Your task to perform on an android device: Go to privacy settings Image 0: 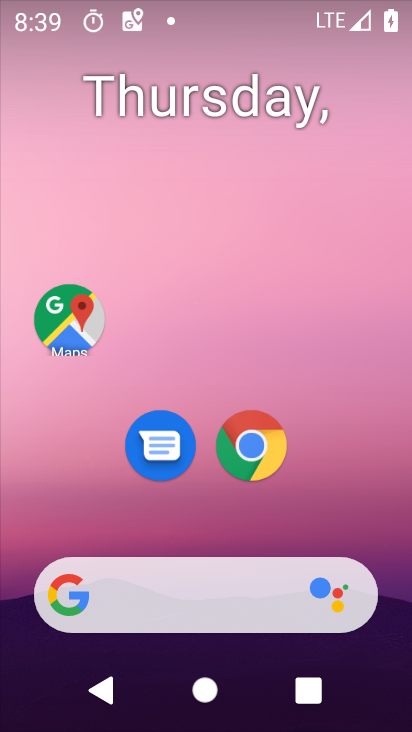
Step 0: drag from (198, 535) to (218, 154)
Your task to perform on an android device: Go to privacy settings Image 1: 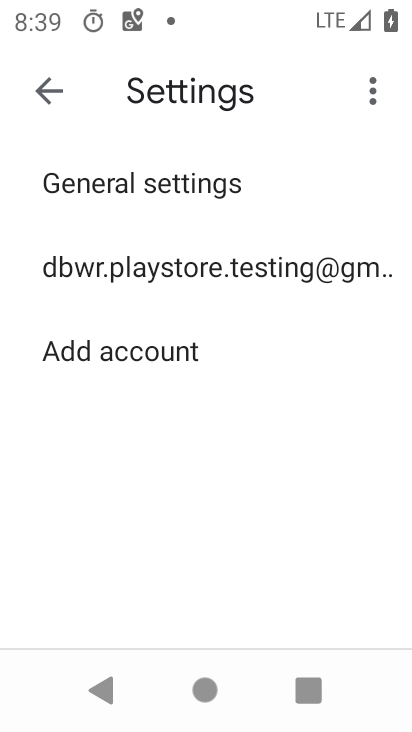
Step 1: press home button
Your task to perform on an android device: Go to privacy settings Image 2: 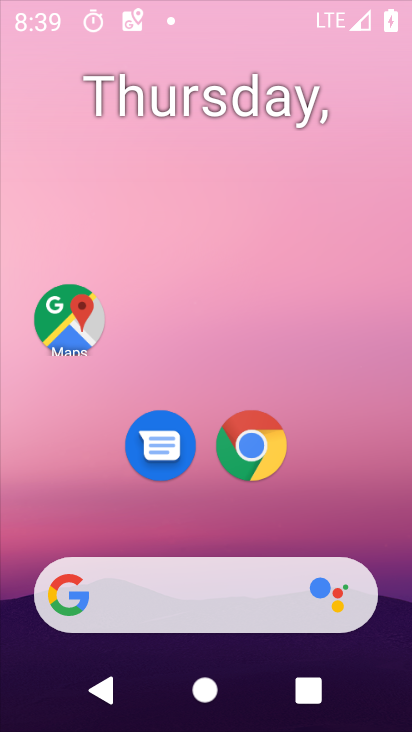
Step 2: drag from (192, 532) to (176, 148)
Your task to perform on an android device: Go to privacy settings Image 3: 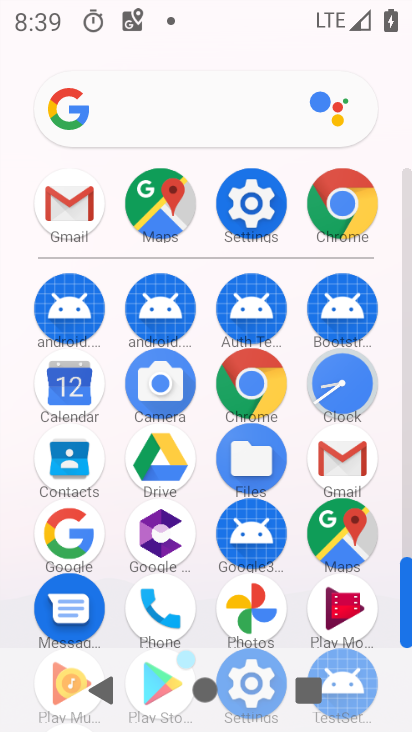
Step 3: click (260, 204)
Your task to perform on an android device: Go to privacy settings Image 4: 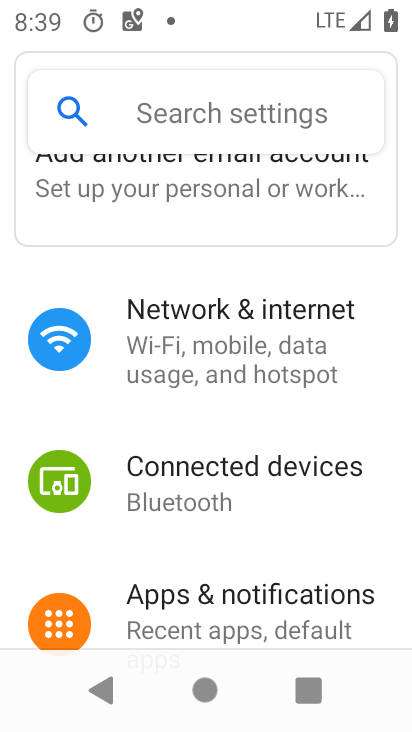
Step 4: drag from (192, 594) to (315, 88)
Your task to perform on an android device: Go to privacy settings Image 5: 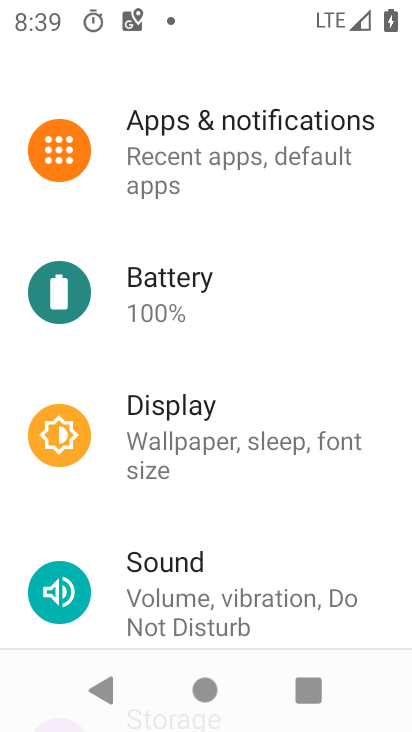
Step 5: drag from (223, 565) to (245, 192)
Your task to perform on an android device: Go to privacy settings Image 6: 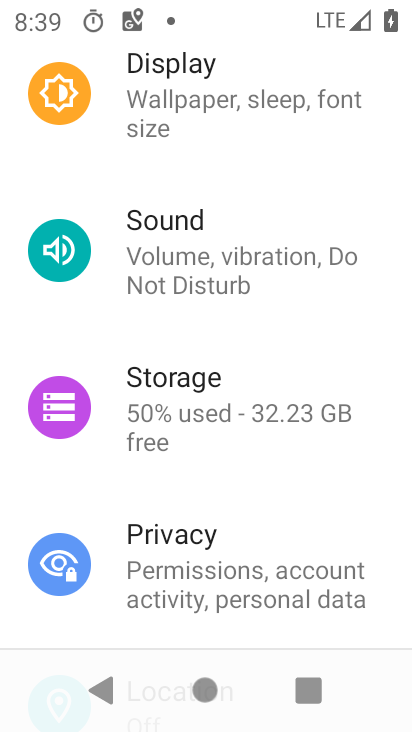
Step 6: click (191, 533)
Your task to perform on an android device: Go to privacy settings Image 7: 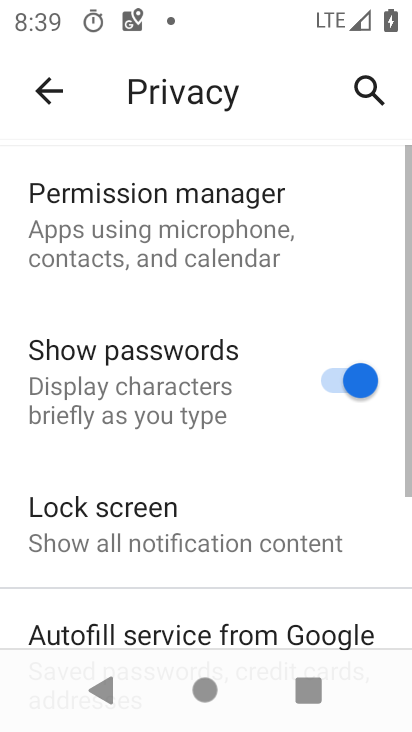
Step 7: task complete